Your task to perform on an android device: Open Google Image 0: 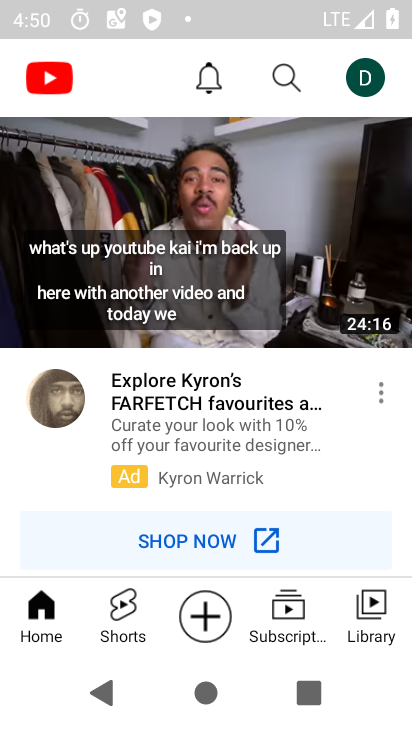
Step 0: press home button
Your task to perform on an android device: Open Google Image 1: 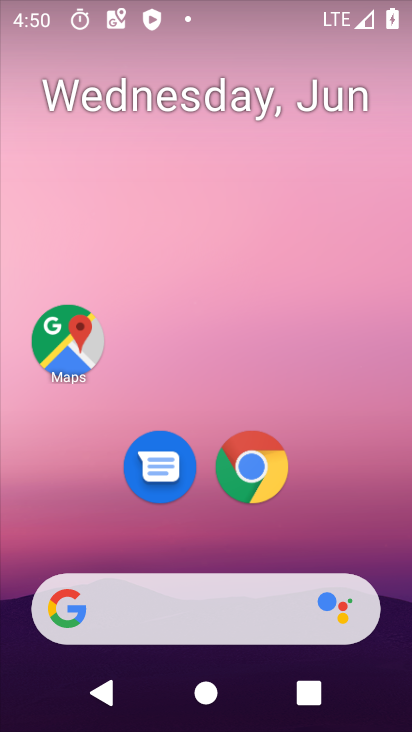
Step 1: drag from (338, 536) to (137, 22)
Your task to perform on an android device: Open Google Image 2: 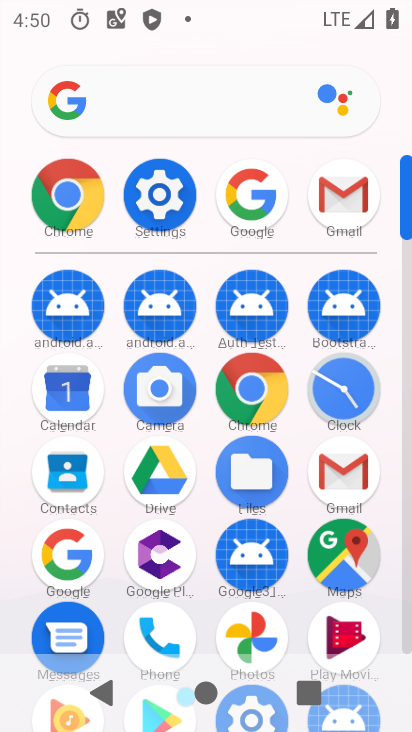
Step 2: click (78, 551)
Your task to perform on an android device: Open Google Image 3: 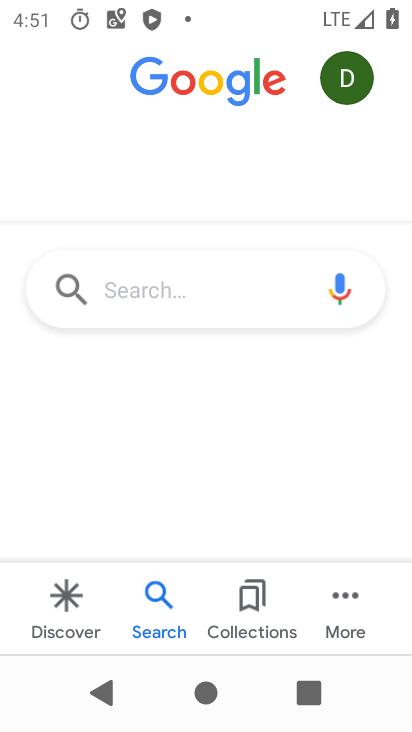
Step 3: task complete